Your task to perform on an android device: Open Android settings Image 0: 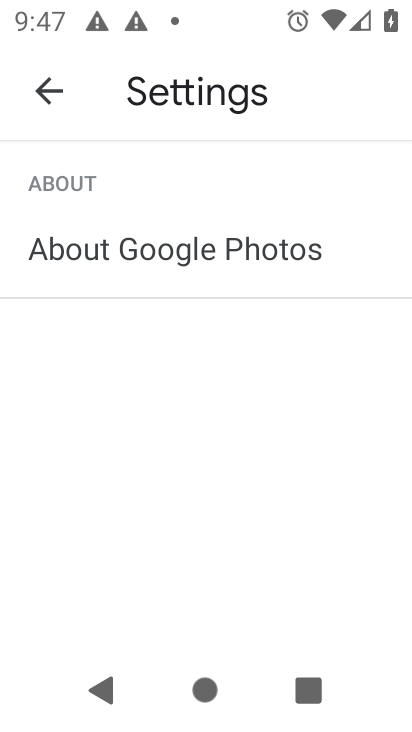
Step 0: press home button
Your task to perform on an android device: Open Android settings Image 1: 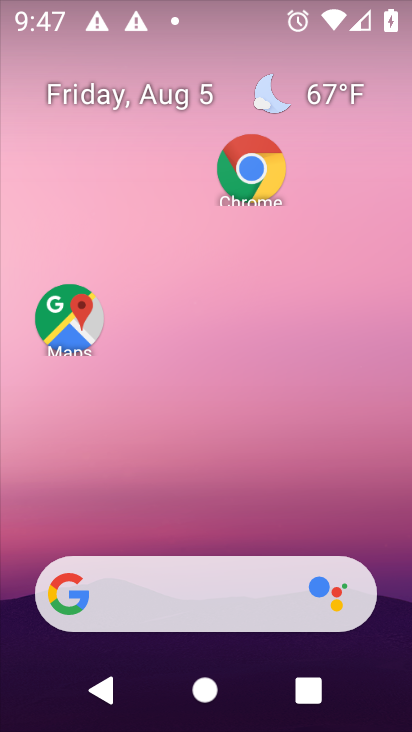
Step 1: drag from (158, 525) to (158, 90)
Your task to perform on an android device: Open Android settings Image 2: 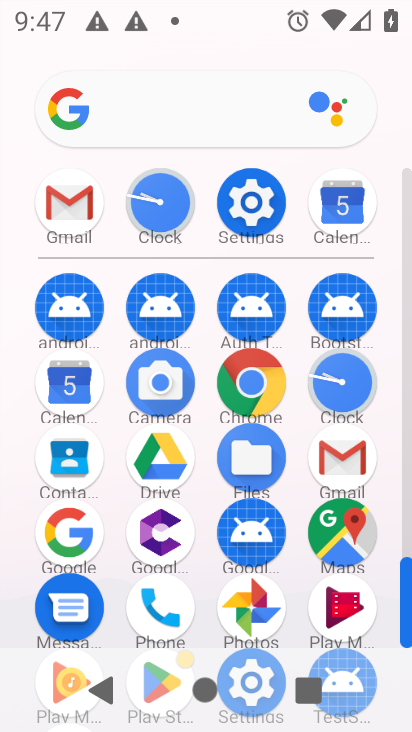
Step 2: click (230, 213)
Your task to perform on an android device: Open Android settings Image 3: 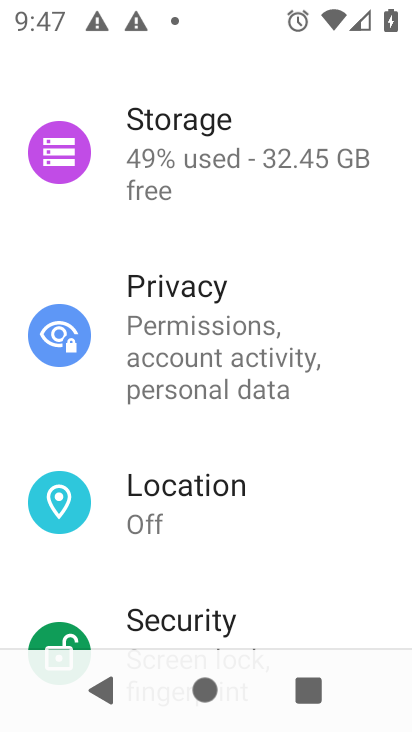
Step 3: drag from (255, 543) to (198, 162)
Your task to perform on an android device: Open Android settings Image 4: 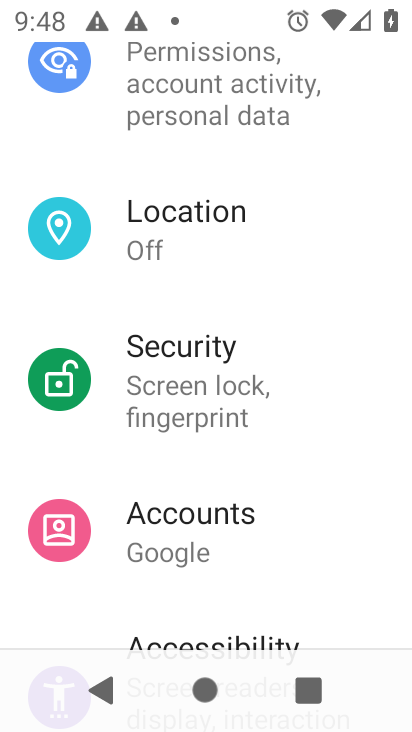
Step 4: click (182, 172)
Your task to perform on an android device: Open Android settings Image 5: 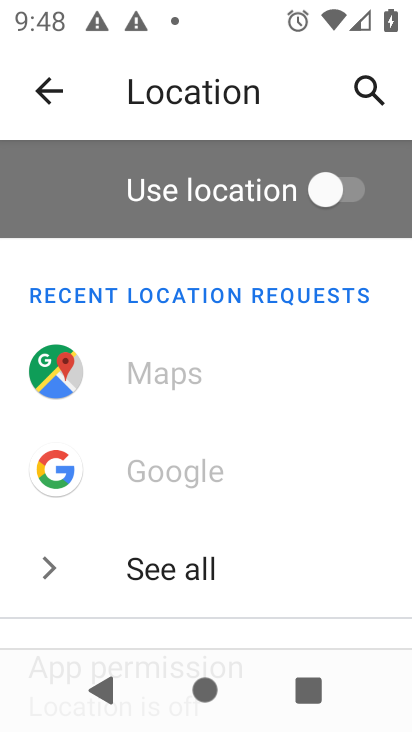
Step 5: drag from (241, 551) to (232, 92)
Your task to perform on an android device: Open Android settings Image 6: 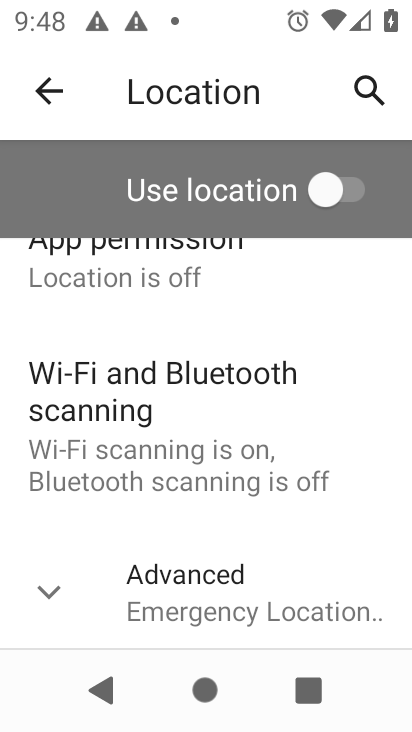
Step 6: click (51, 83)
Your task to perform on an android device: Open Android settings Image 7: 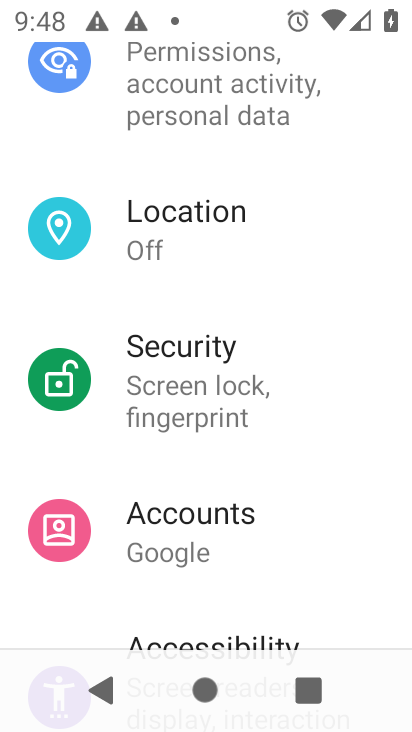
Step 7: task complete